Your task to perform on an android device: Is it going to rain today? Image 0: 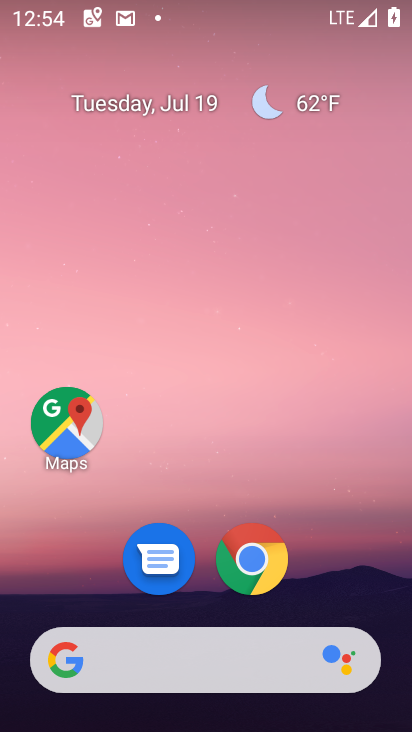
Step 0: drag from (201, 605) to (273, 20)
Your task to perform on an android device: Is it going to rain today? Image 1: 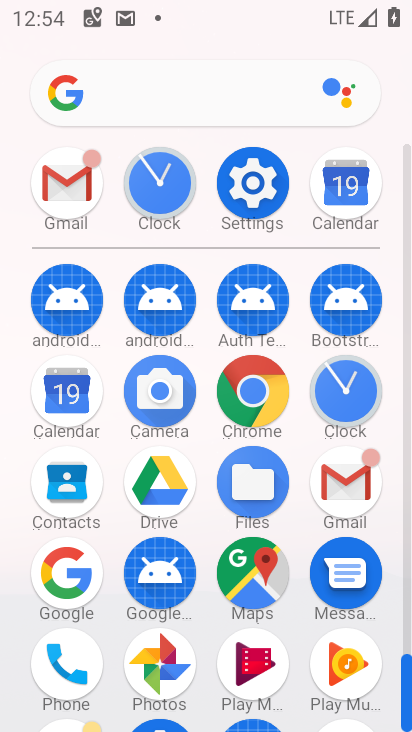
Step 1: drag from (219, 472) to (257, 205)
Your task to perform on an android device: Is it going to rain today? Image 2: 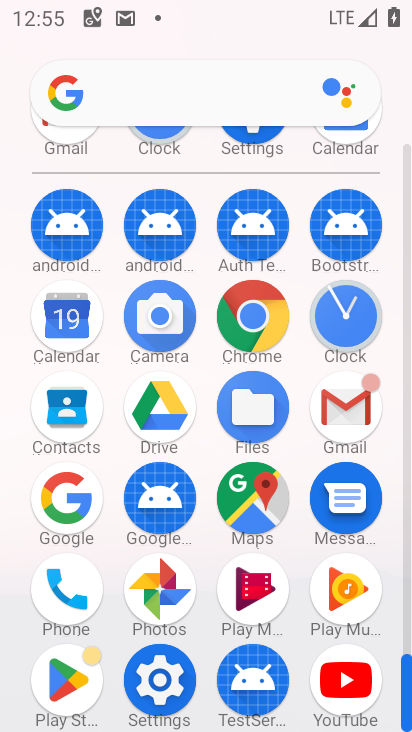
Step 2: click (80, 503)
Your task to perform on an android device: Is it going to rain today? Image 3: 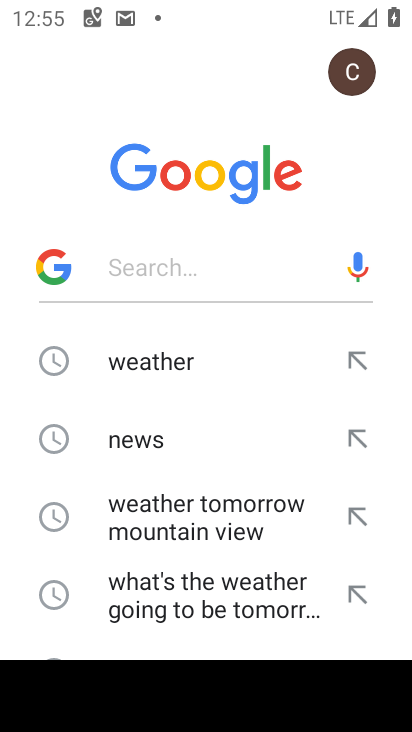
Step 3: click (199, 359)
Your task to perform on an android device: Is it going to rain today? Image 4: 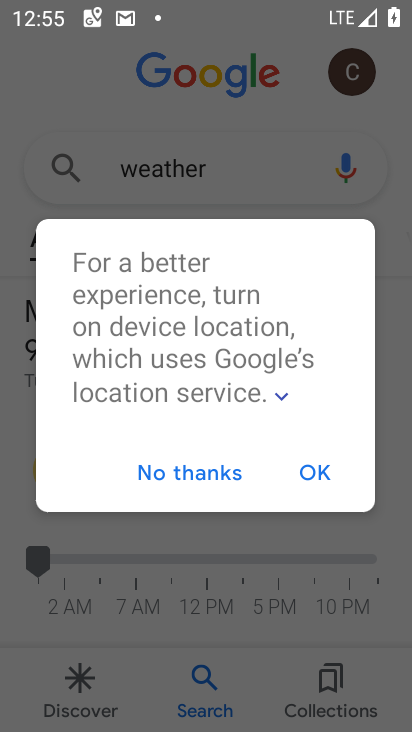
Step 4: click (314, 477)
Your task to perform on an android device: Is it going to rain today? Image 5: 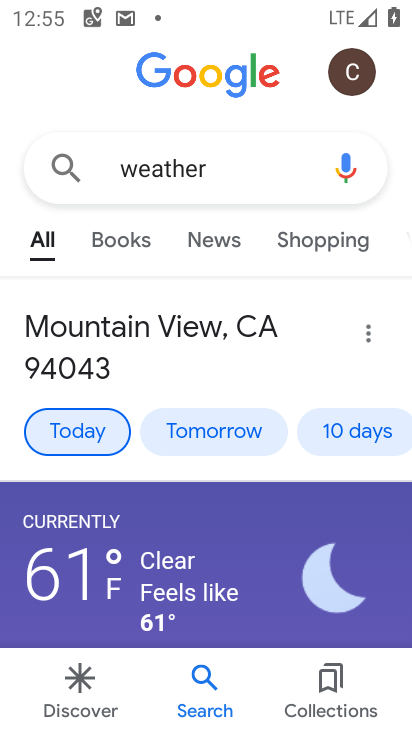
Step 5: task complete